Your task to perform on an android device: change text size in settings app Image 0: 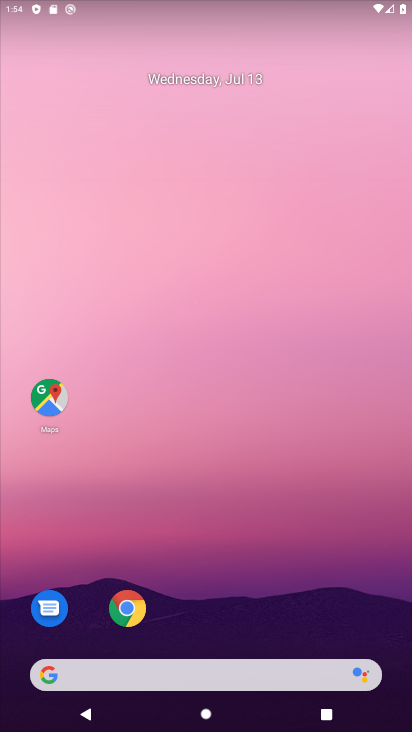
Step 0: drag from (193, 648) to (281, 191)
Your task to perform on an android device: change text size in settings app Image 1: 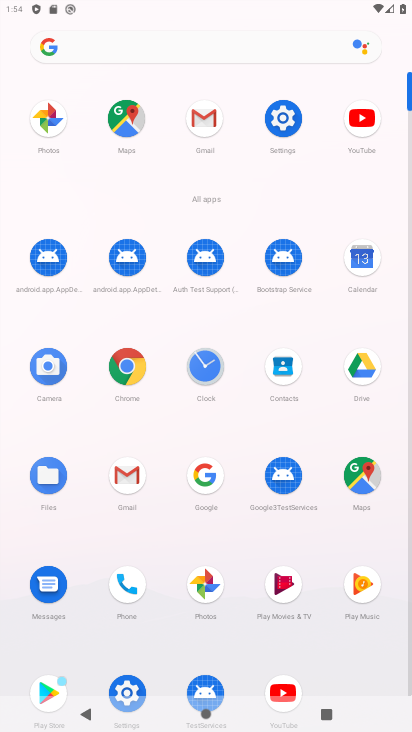
Step 1: click (129, 678)
Your task to perform on an android device: change text size in settings app Image 2: 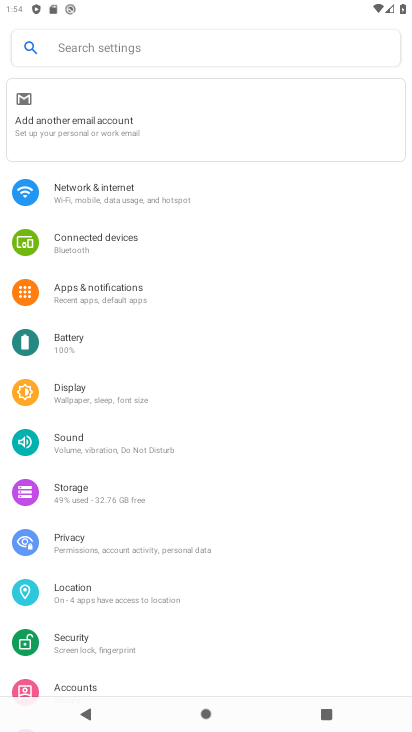
Step 2: click (91, 392)
Your task to perform on an android device: change text size in settings app Image 3: 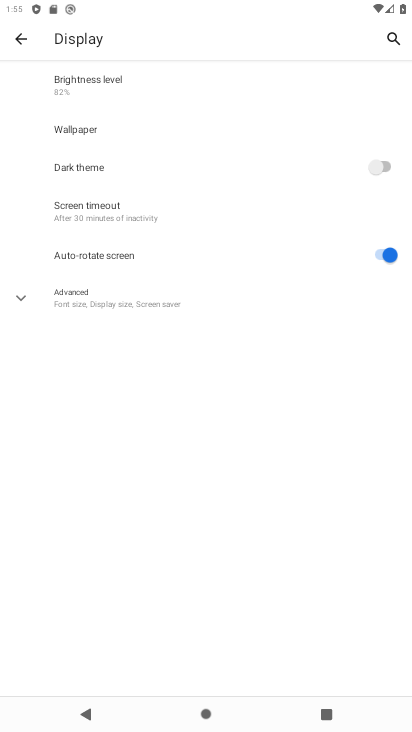
Step 3: click (125, 292)
Your task to perform on an android device: change text size in settings app Image 4: 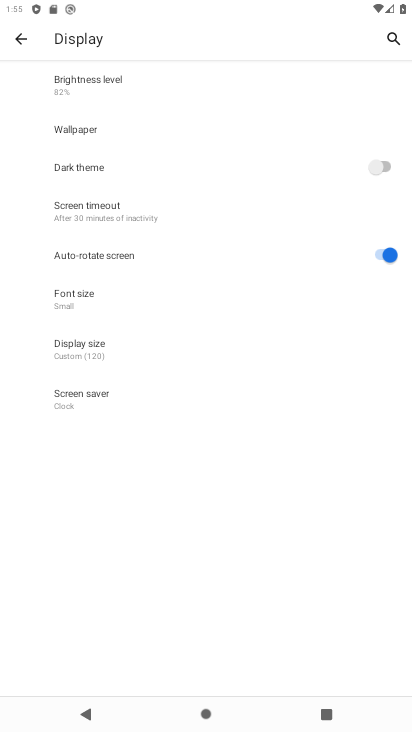
Step 4: click (104, 303)
Your task to perform on an android device: change text size in settings app Image 5: 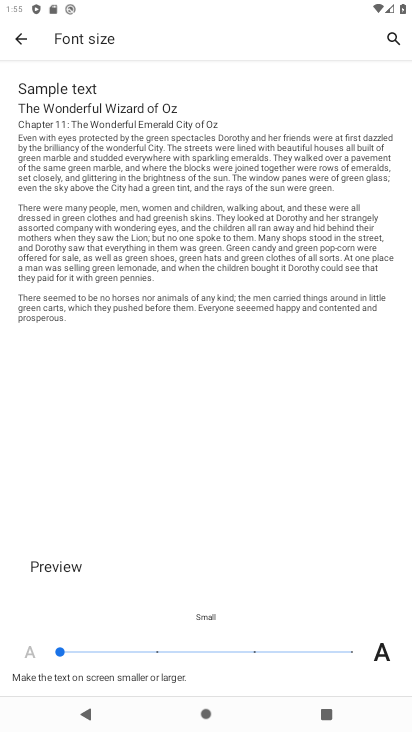
Step 5: click (259, 651)
Your task to perform on an android device: change text size in settings app Image 6: 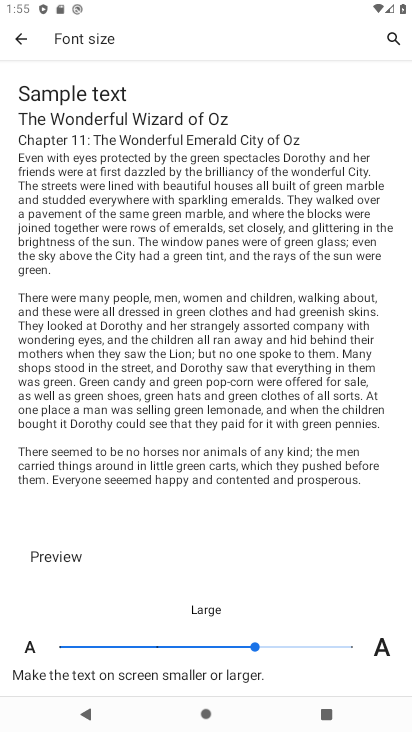
Step 6: task complete